Your task to perform on an android device: turn on wifi Image 0: 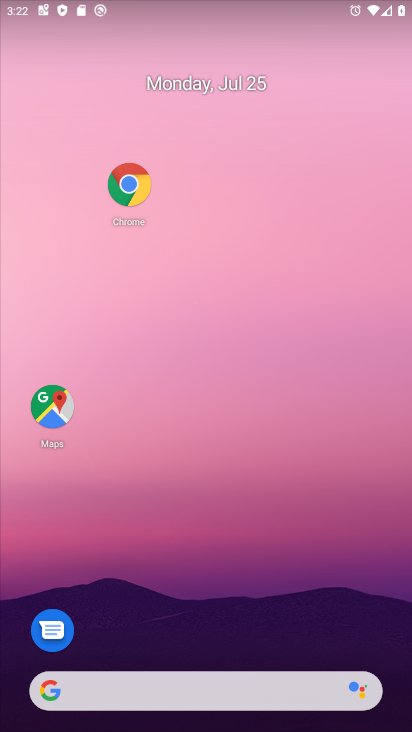
Step 0: drag from (285, 660) to (257, 108)
Your task to perform on an android device: turn on wifi Image 1: 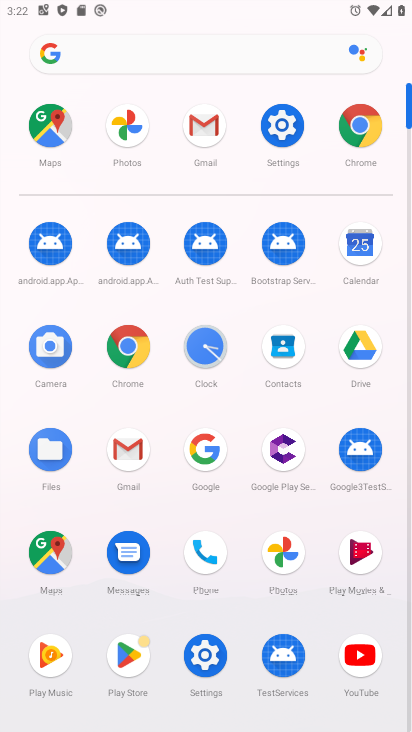
Step 1: click (277, 132)
Your task to perform on an android device: turn on wifi Image 2: 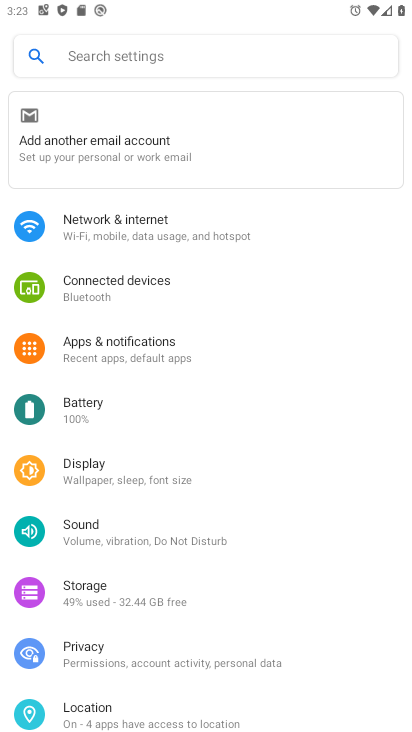
Step 2: click (213, 214)
Your task to perform on an android device: turn on wifi Image 3: 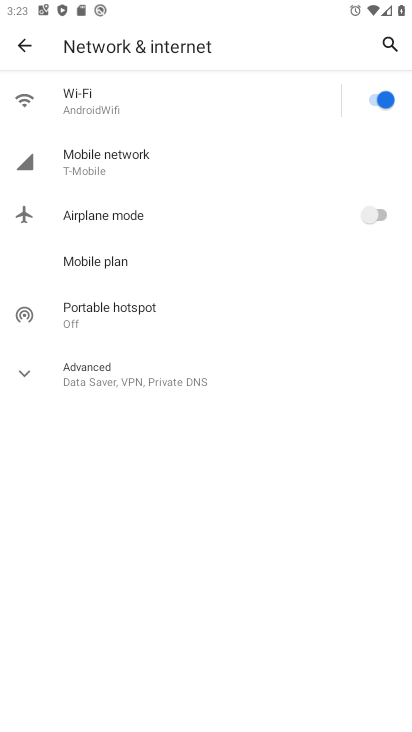
Step 3: task complete